Your task to perform on an android device: turn on sleep mode Image 0: 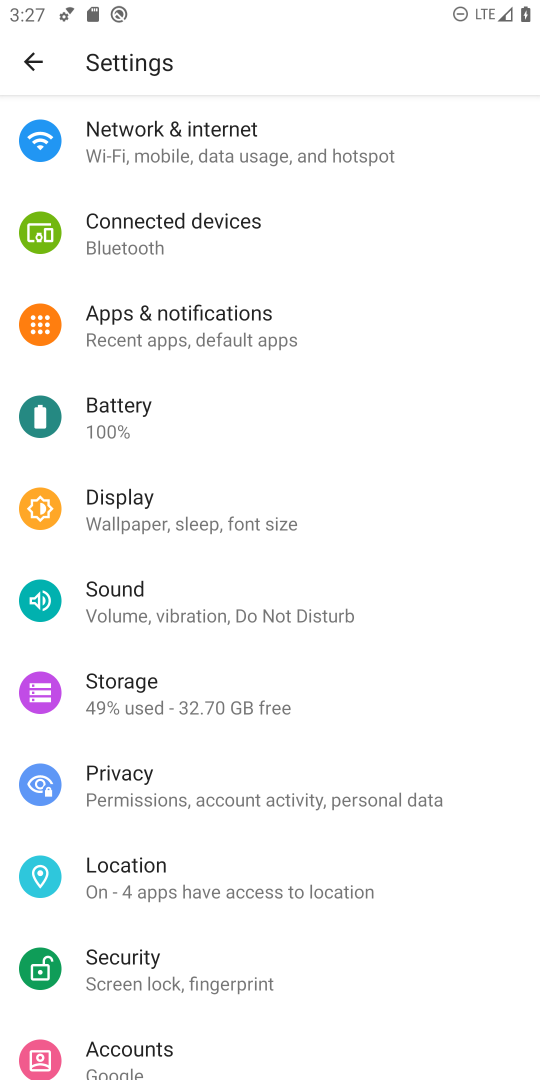
Step 0: drag from (267, 10) to (250, 1029)
Your task to perform on an android device: turn on sleep mode Image 1: 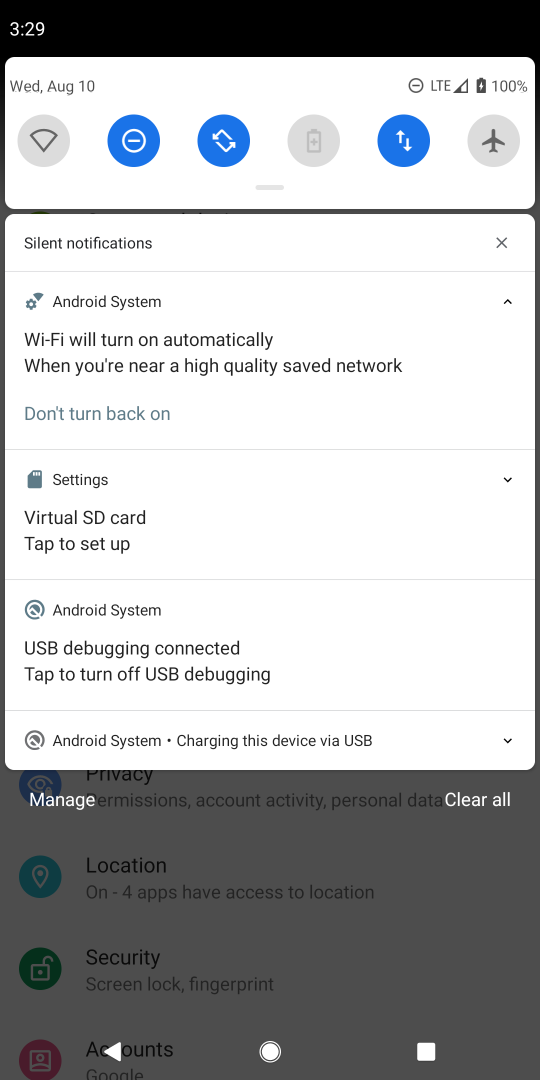
Step 1: task complete